Your task to perform on an android device: Open calendar and show me the third week of next month Image 0: 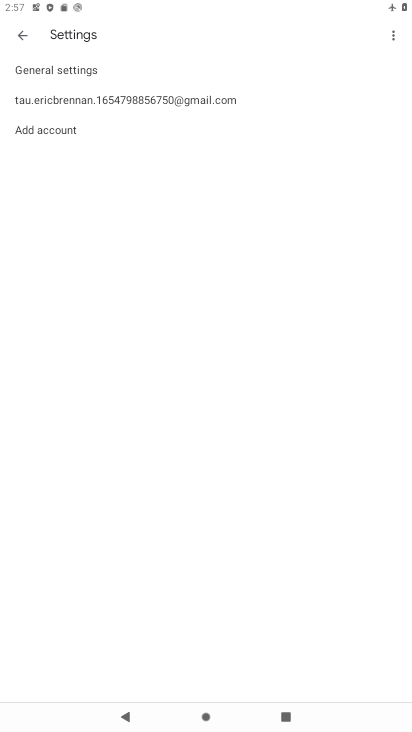
Step 0: press home button
Your task to perform on an android device: Open calendar and show me the third week of next month Image 1: 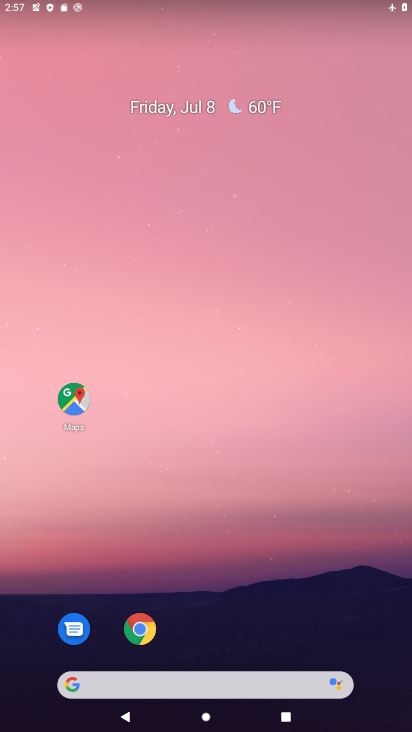
Step 1: drag from (193, 641) to (203, 249)
Your task to perform on an android device: Open calendar and show me the third week of next month Image 2: 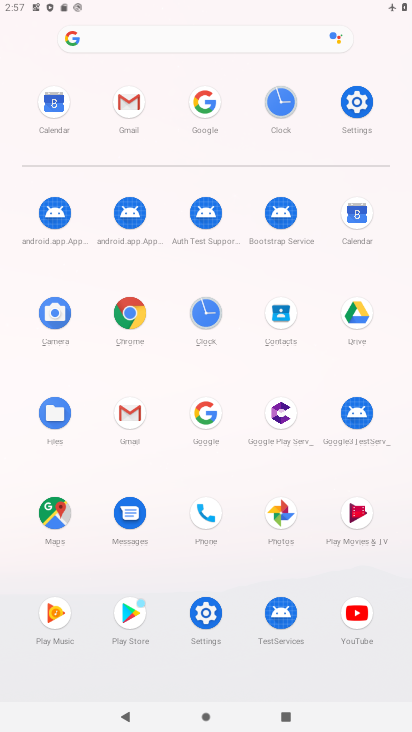
Step 2: click (364, 234)
Your task to perform on an android device: Open calendar and show me the third week of next month Image 3: 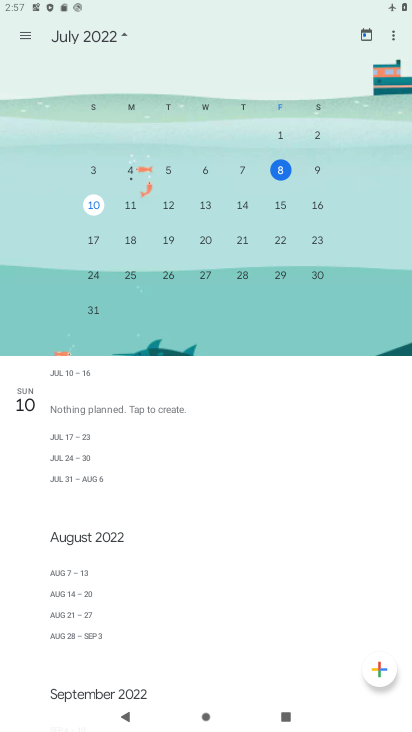
Step 3: drag from (339, 180) to (3, 199)
Your task to perform on an android device: Open calendar and show me the third week of next month Image 4: 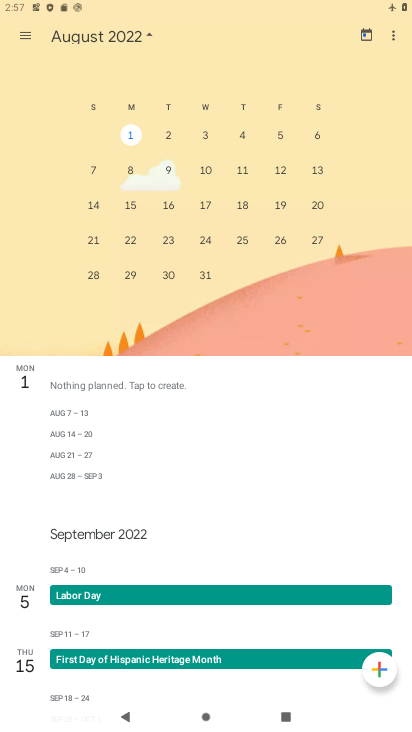
Step 4: click (103, 210)
Your task to perform on an android device: Open calendar and show me the third week of next month Image 5: 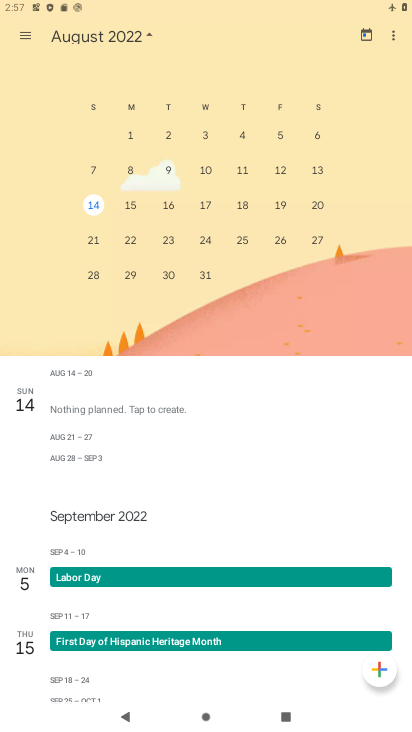
Step 5: click (107, 209)
Your task to perform on an android device: Open calendar and show me the third week of next month Image 6: 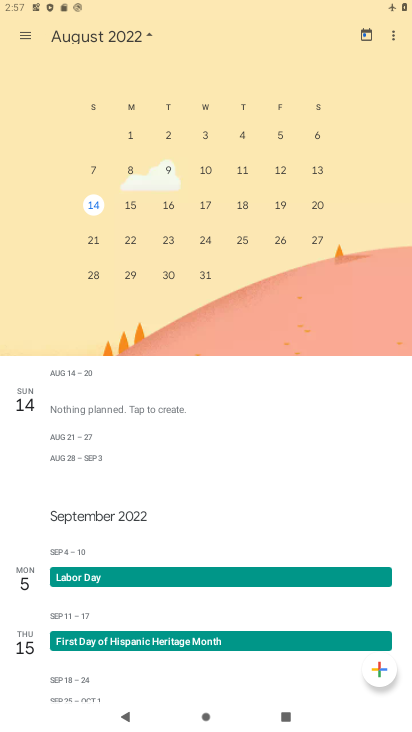
Step 6: click (122, 209)
Your task to perform on an android device: Open calendar and show me the third week of next month Image 7: 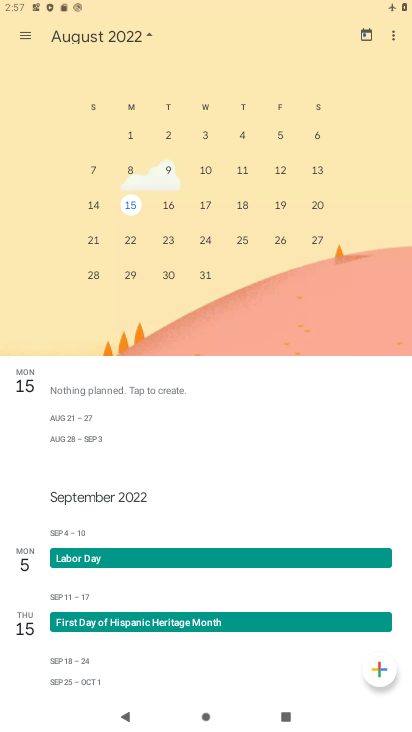
Step 7: click (105, 207)
Your task to perform on an android device: Open calendar and show me the third week of next month Image 8: 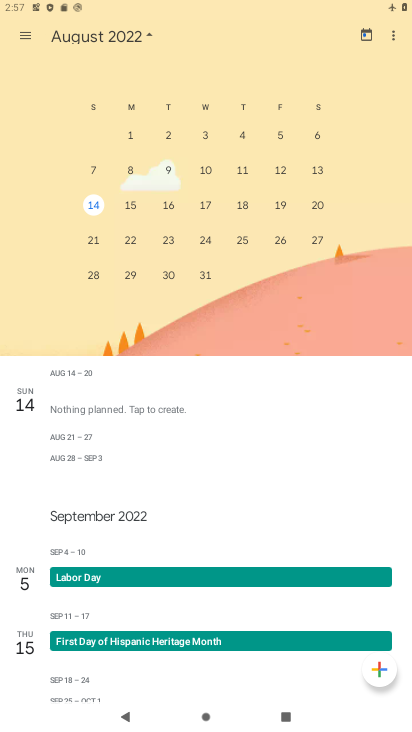
Step 8: task complete